Your task to perform on an android device: snooze an email in the gmail app Image 0: 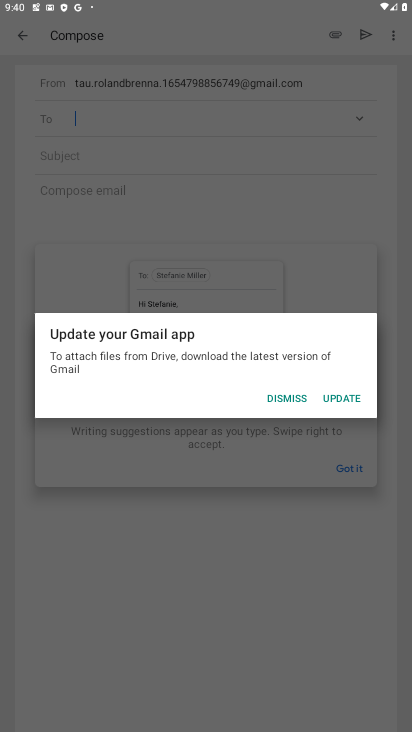
Step 0: press home button
Your task to perform on an android device: snooze an email in the gmail app Image 1: 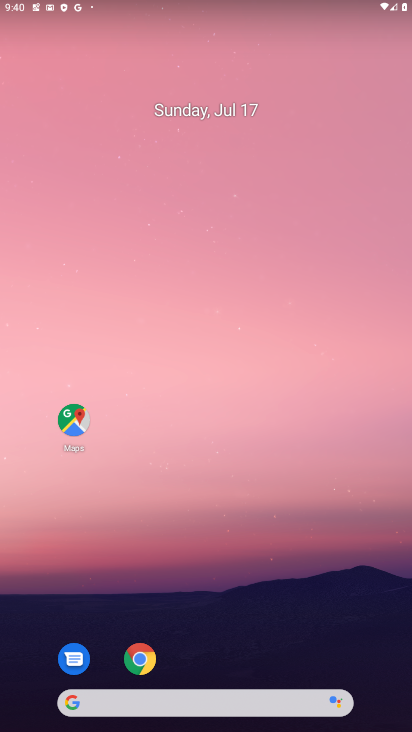
Step 1: drag from (225, 673) to (254, 200)
Your task to perform on an android device: snooze an email in the gmail app Image 2: 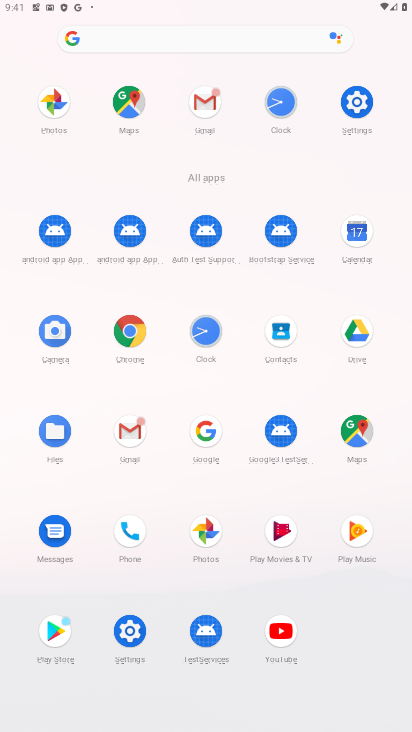
Step 2: click (124, 435)
Your task to perform on an android device: snooze an email in the gmail app Image 3: 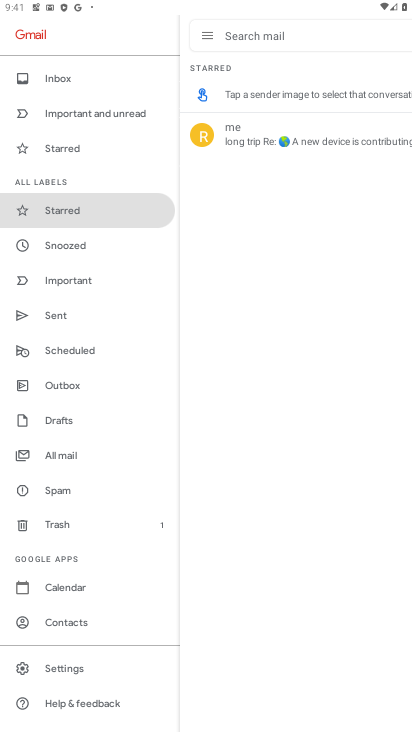
Step 3: click (96, 448)
Your task to perform on an android device: snooze an email in the gmail app Image 4: 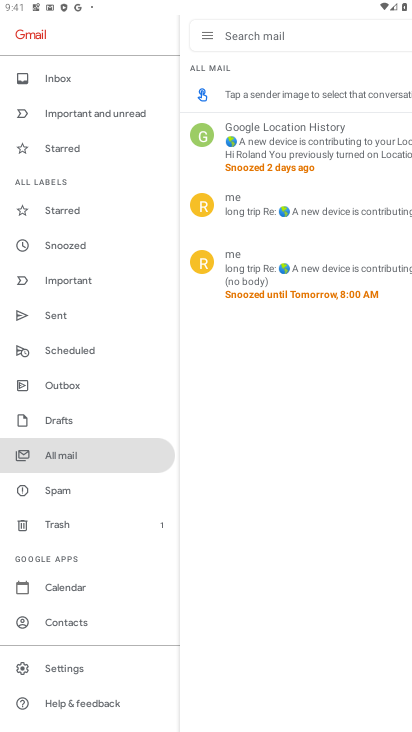
Step 4: click (307, 64)
Your task to perform on an android device: snooze an email in the gmail app Image 5: 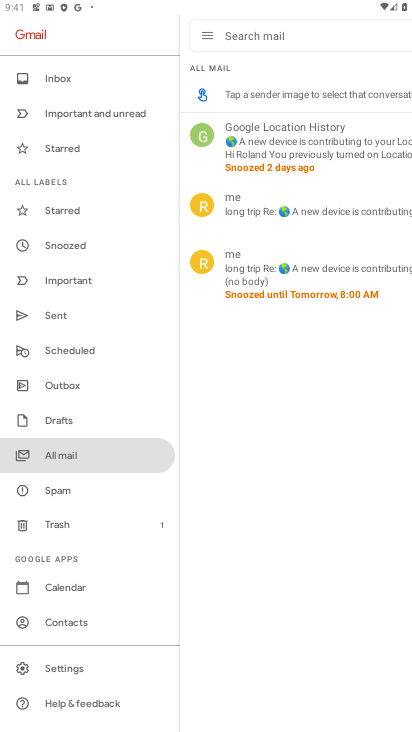
Step 5: drag from (364, 525) to (2, 465)
Your task to perform on an android device: snooze an email in the gmail app Image 6: 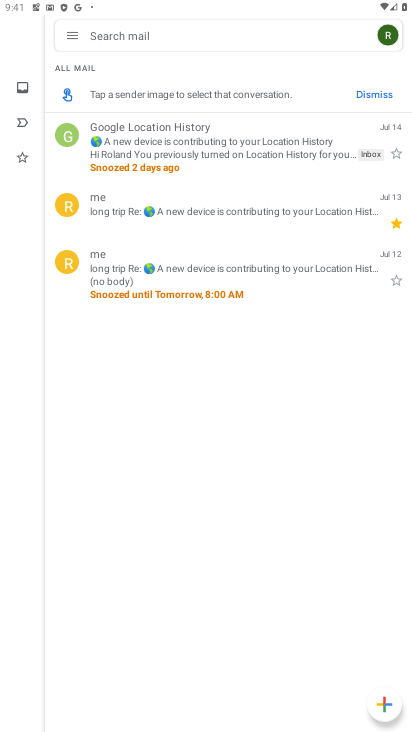
Step 6: click (218, 227)
Your task to perform on an android device: snooze an email in the gmail app Image 7: 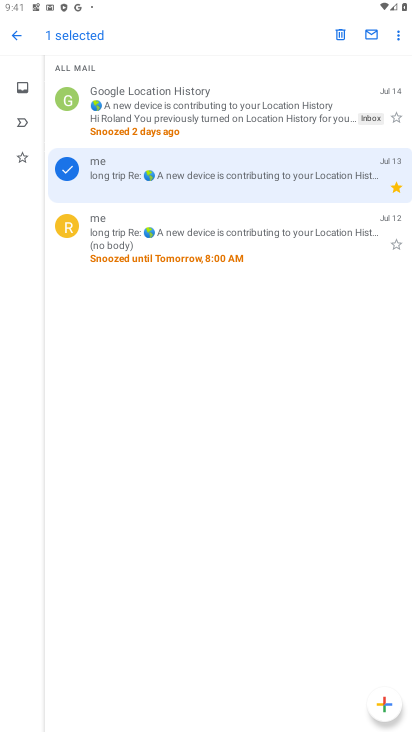
Step 7: click (398, 44)
Your task to perform on an android device: snooze an email in the gmail app Image 8: 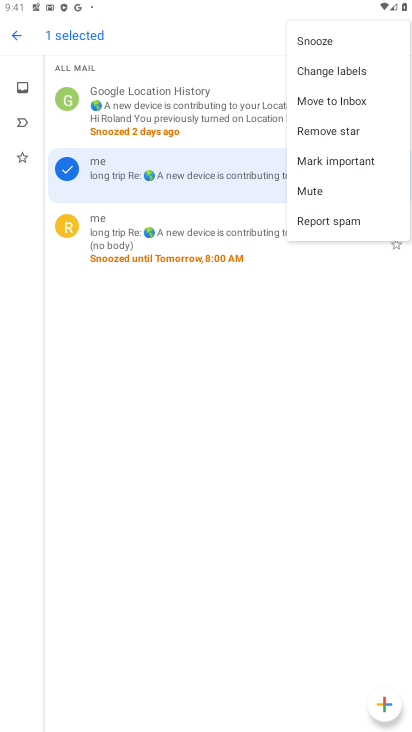
Step 8: click (348, 39)
Your task to perform on an android device: snooze an email in the gmail app Image 9: 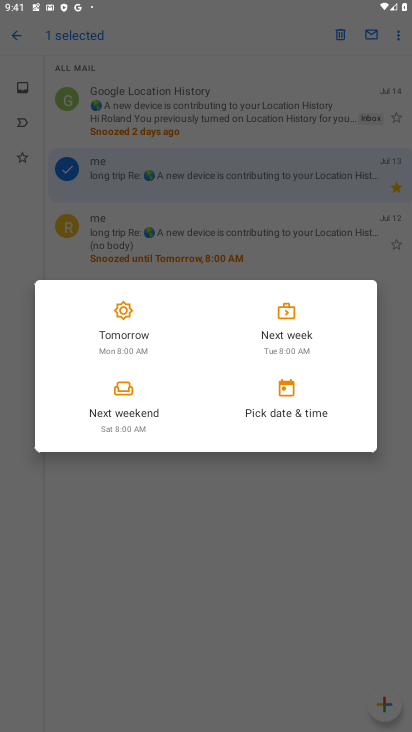
Step 9: click (280, 326)
Your task to perform on an android device: snooze an email in the gmail app Image 10: 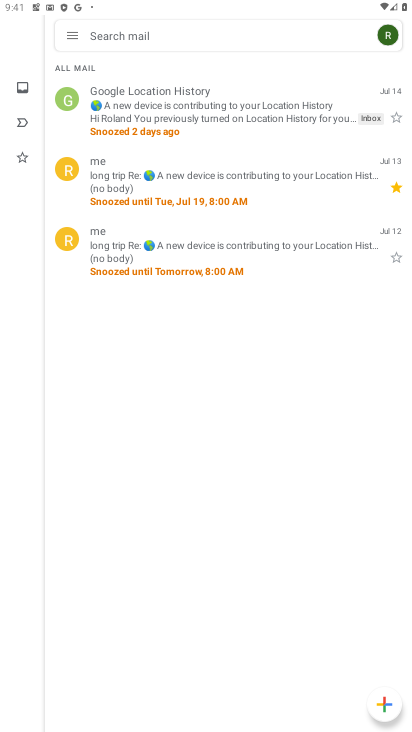
Step 10: task complete